Your task to perform on an android device: Open the Play Movies app and select the watchlist tab. Image 0: 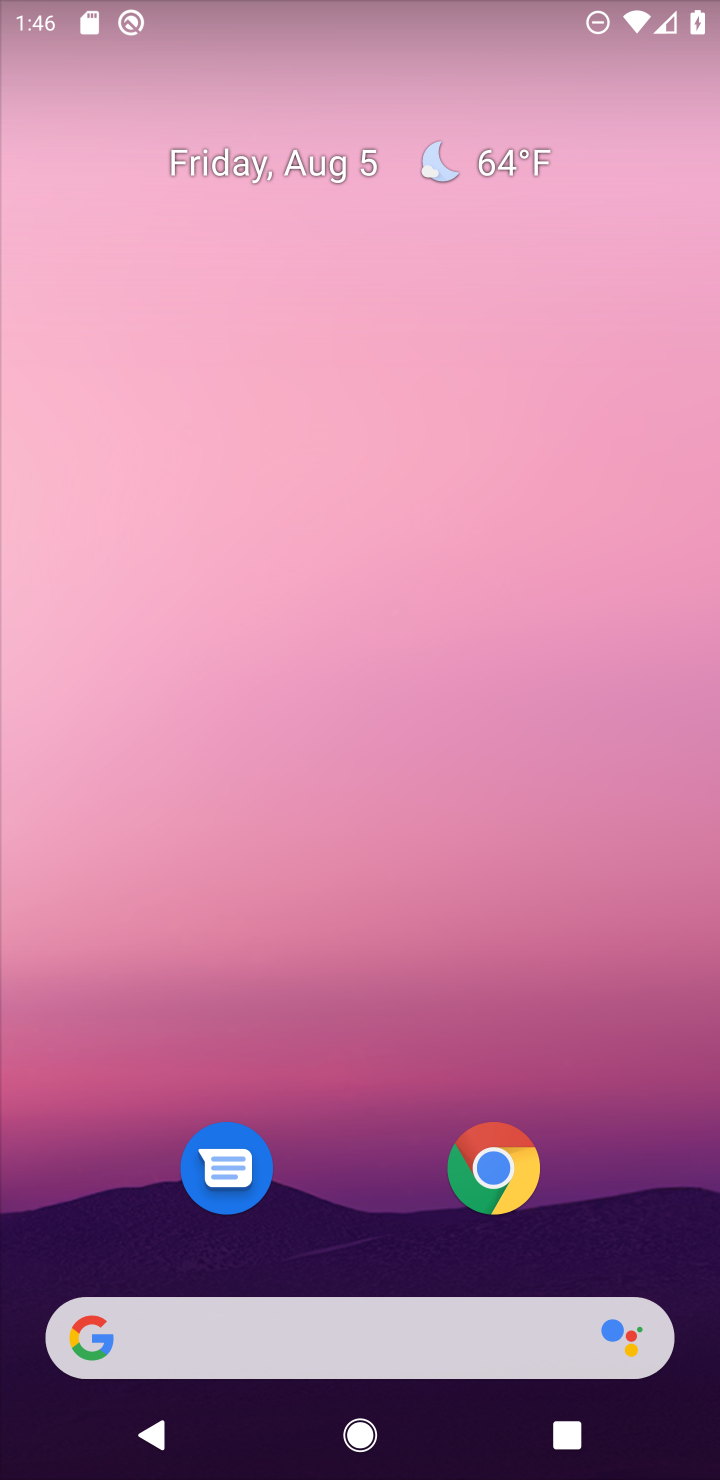
Step 0: drag from (633, 1258) to (333, 217)
Your task to perform on an android device: Open the Play Movies app and select the watchlist tab. Image 1: 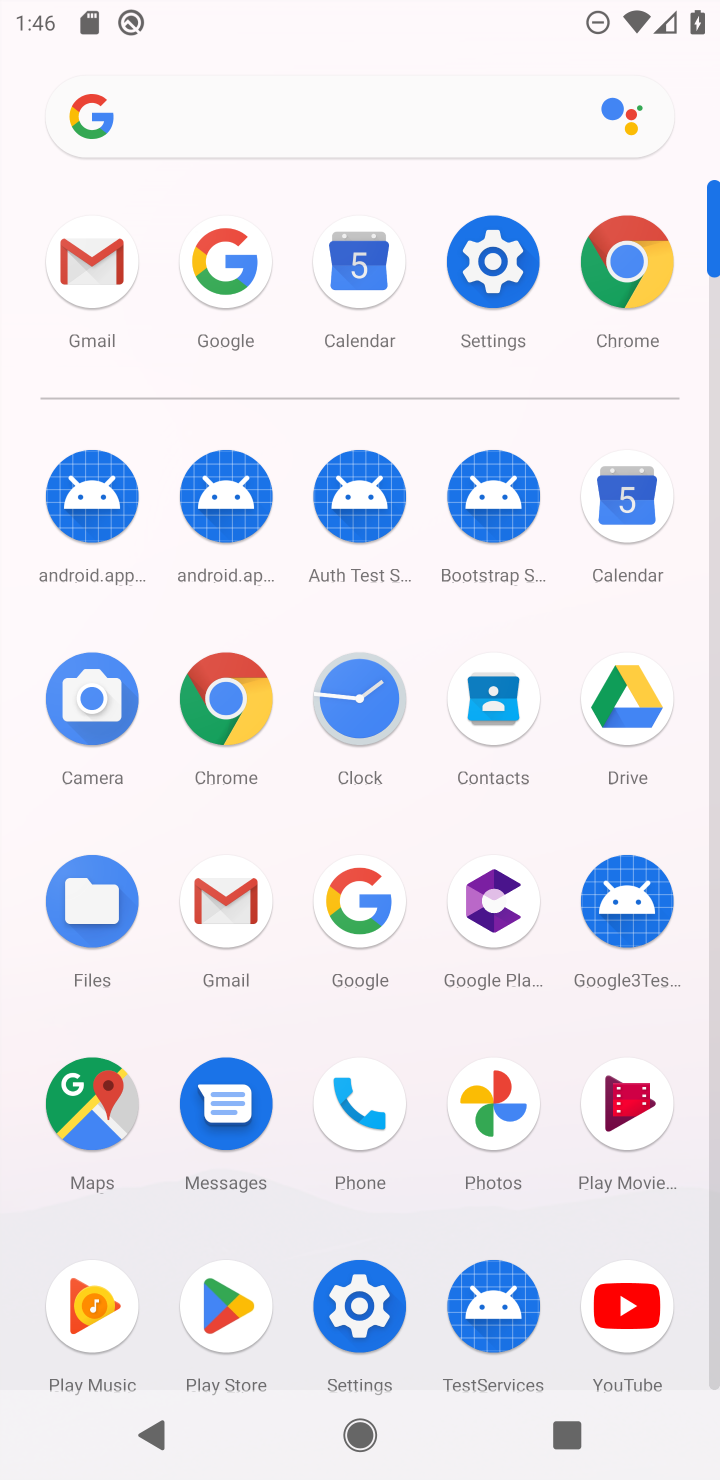
Step 1: click (615, 1114)
Your task to perform on an android device: Open the Play Movies app and select the watchlist tab. Image 2: 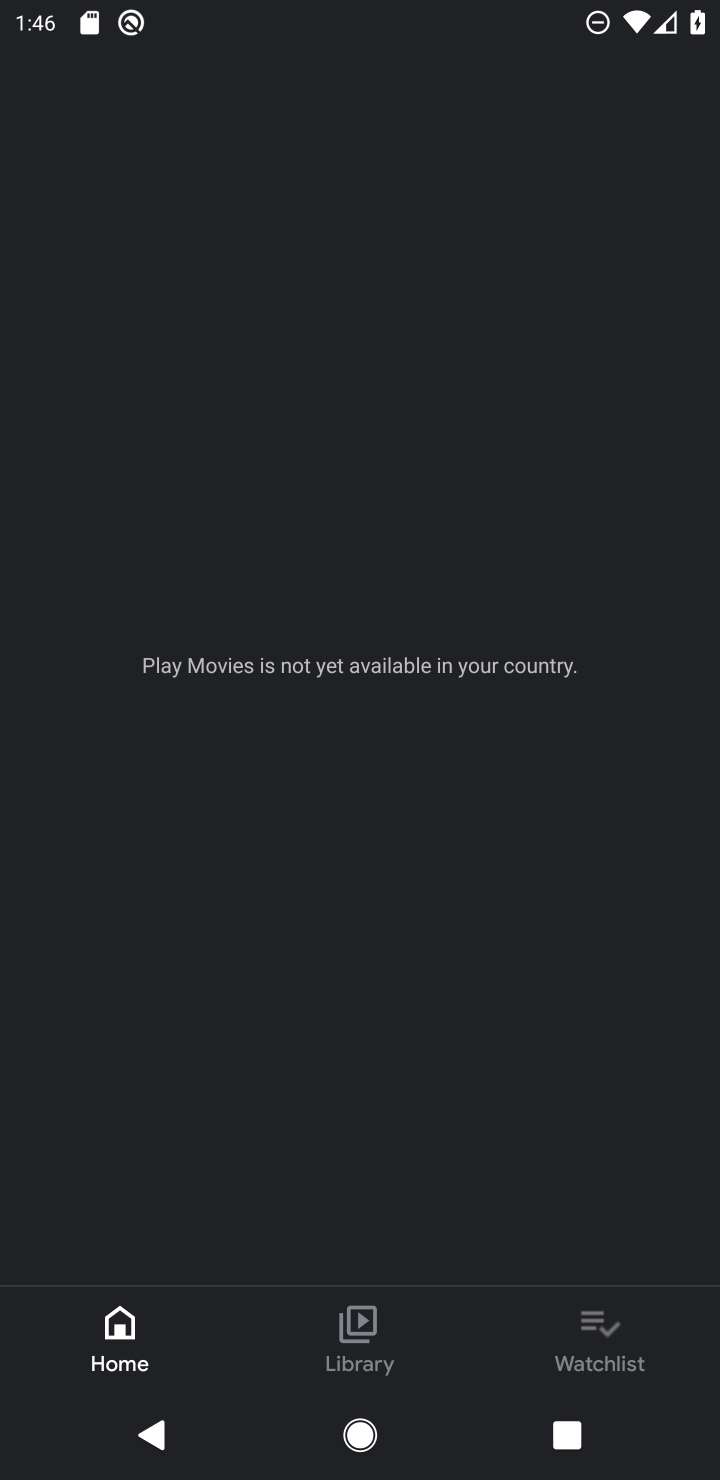
Step 2: click (618, 1329)
Your task to perform on an android device: Open the Play Movies app and select the watchlist tab. Image 3: 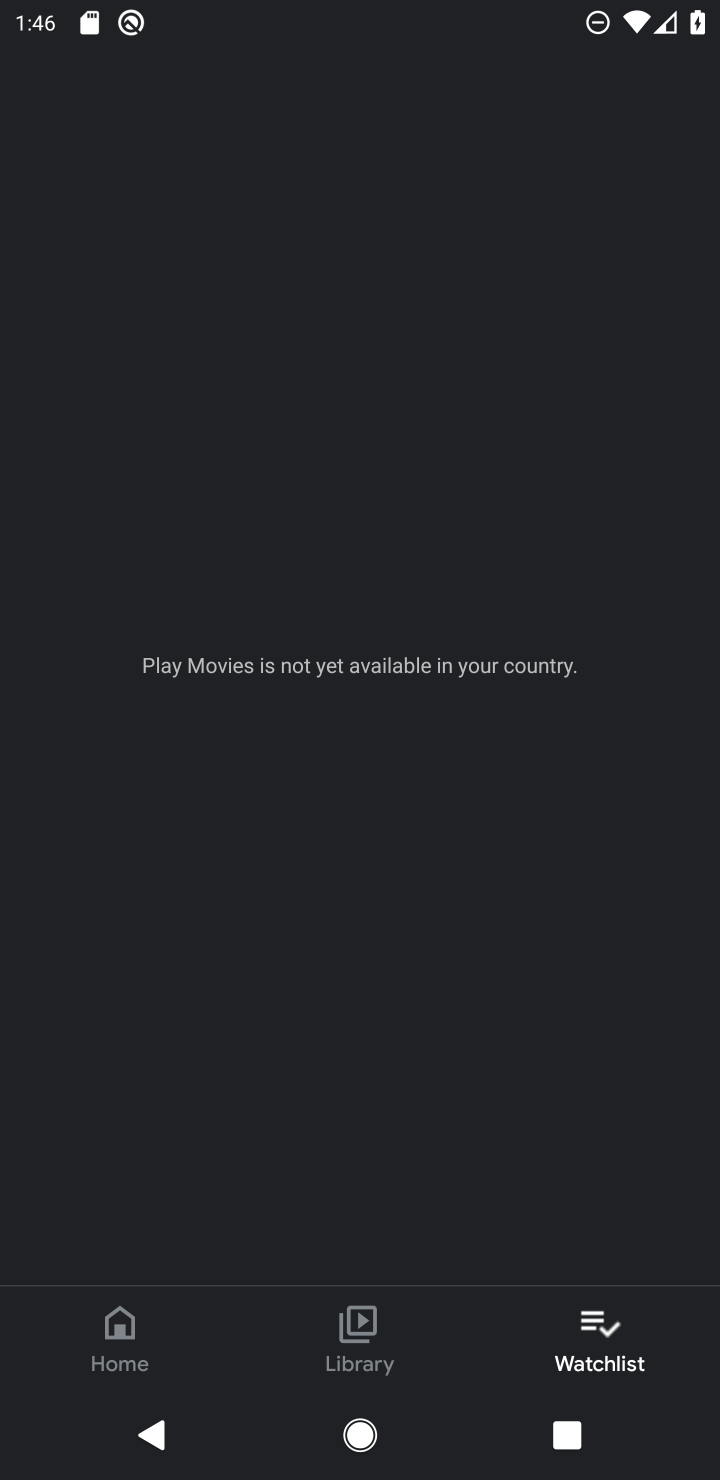
Step 3: task complete